Your task to perform on an android device: check the backup settings in the google photos Image 0: 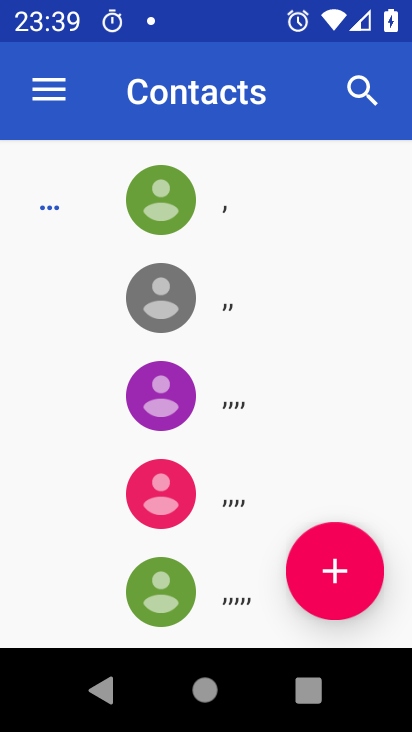
Step 0: press home button
Your task to perform on an android device: check the backup settings in the google photos Image 1: 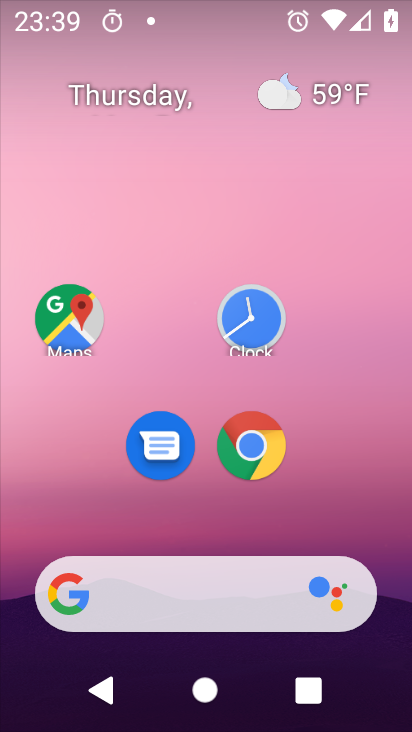
Step 1: drag from (208, 538) to (119, 3)
Your task to perform on an android device: check the backup settings in the google photos Image 2: 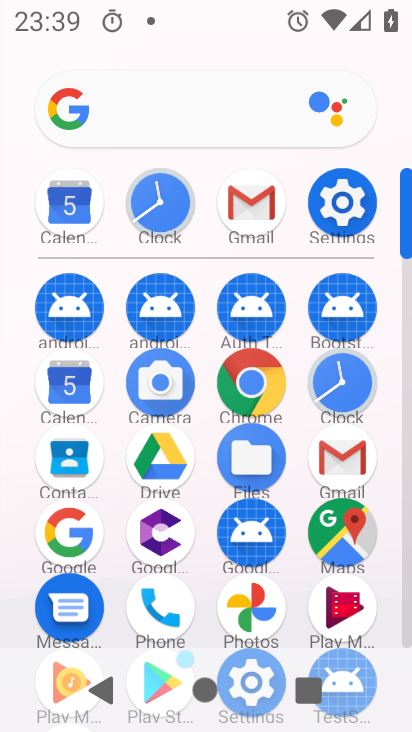
Step 2: click (253, 599)
Your task to perform on an android device: check the backup settings in the google photos Image 3: 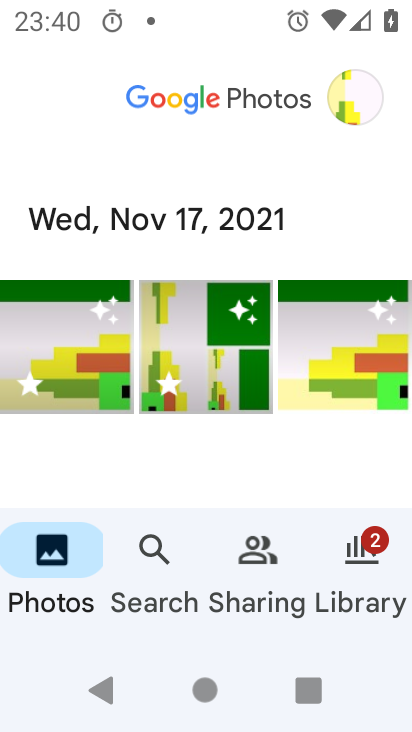
Step 3: click (344, 97)
Your task to perform on an android device: check the backup settings in the google photos Image 4: 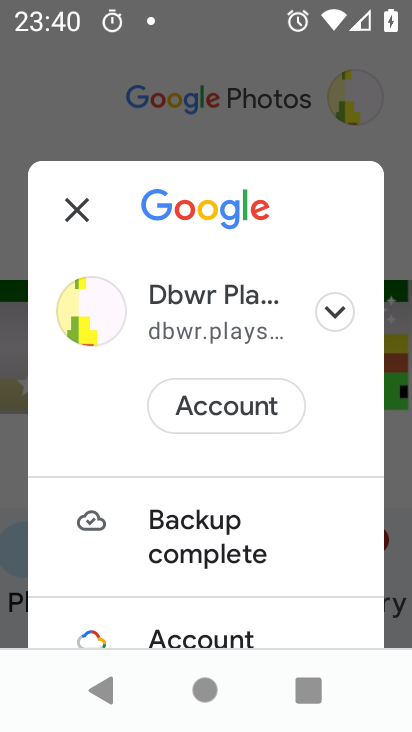
Step 4: drag from (216, 537) to (243, 220)
Your task to perform on an android device: check the backup settings in the google photos Image 5: 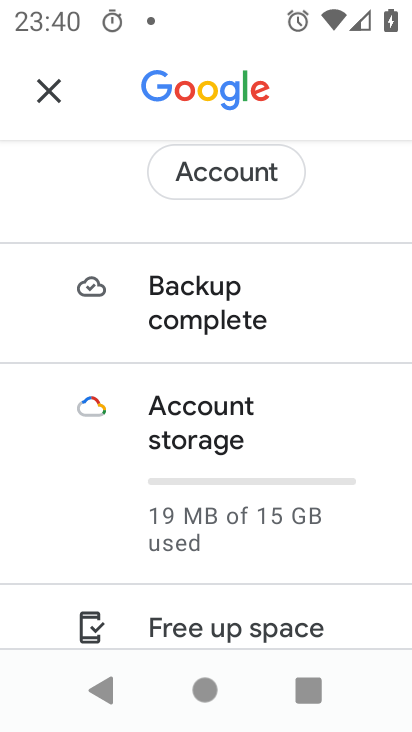
Step 5: drag from (226, 590) to (251, 172)
Your task to perform on an android device: check the backup settings in the google photos Image 6: 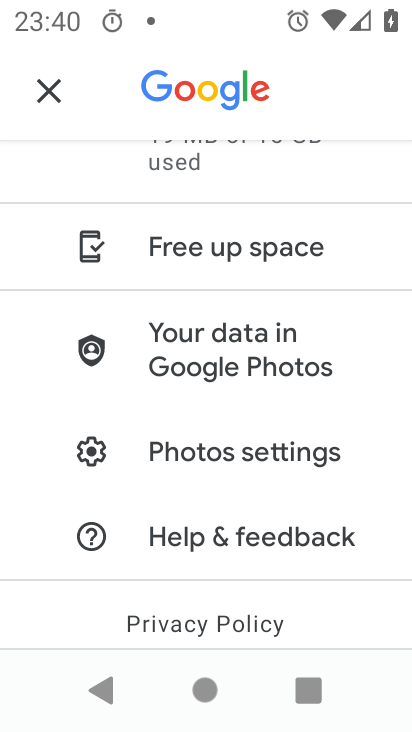
Step 6: click (184, 452)
Your task to perform on an android device: check the backup settings in the google photos Image 7: 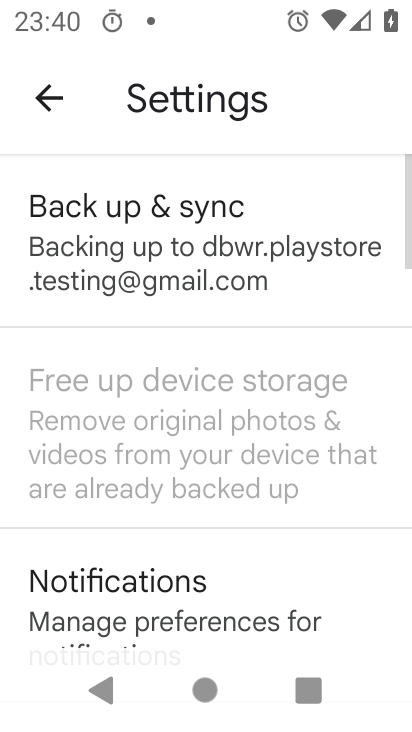
Step 7: click (213, 305)
Your task to perform on an android device: check the backup settings in the google photos Image 8: 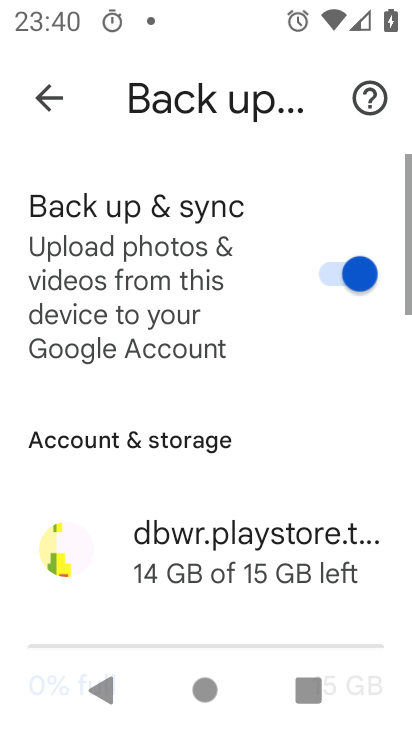
Step 8: task complete